Your task to perform on an android device: manage bookmarks in the chrome app Image 0: 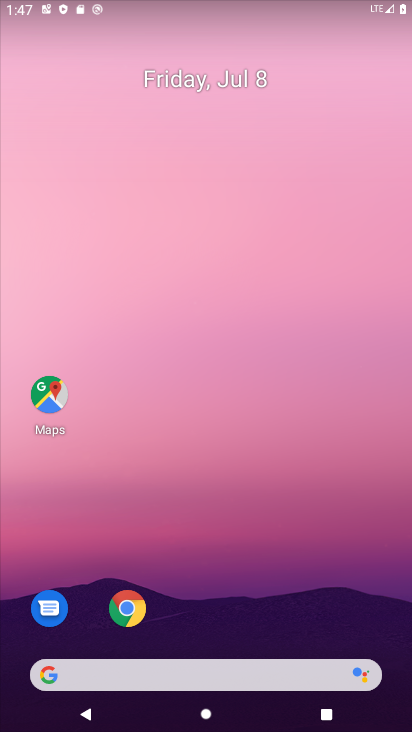
Step 0: click (127, 607)
Your task to perform on an android device: manage bookmarks in the chrome app Image 1: 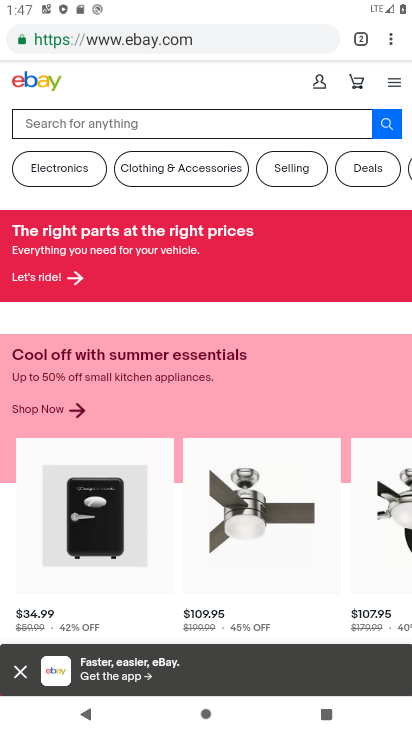
Step 1: click (388, 41)
Your task to perform on an android device: manage bookmarks in the chrome app Image 2: 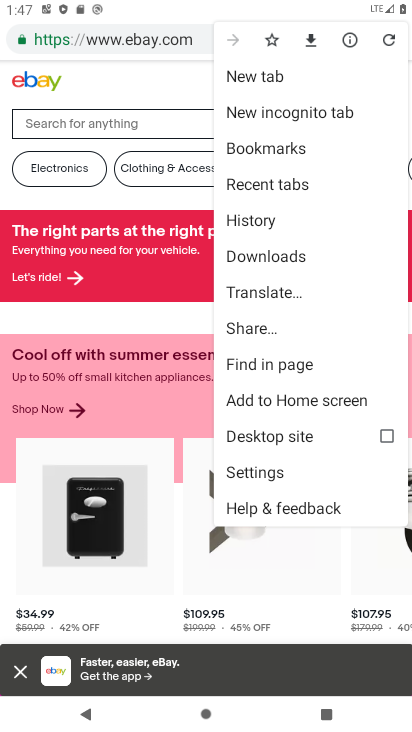
Step 2: click (254, 146)
Your task to perform on an android device: manage bookmarks in the chrome app Image 3: 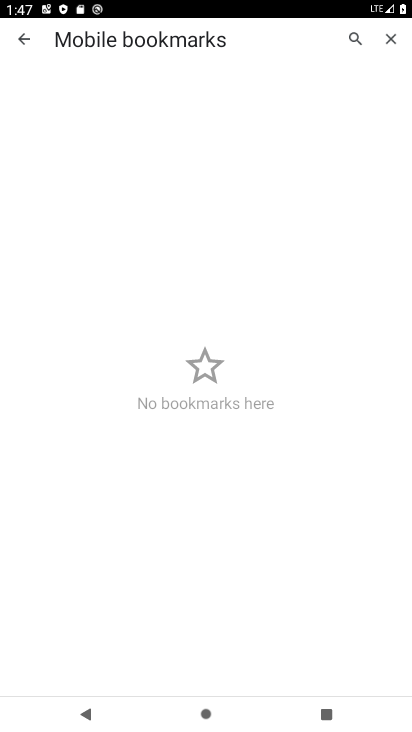
Step 3: task complete